Your task to perform on an android device: change the clock style Image 0: 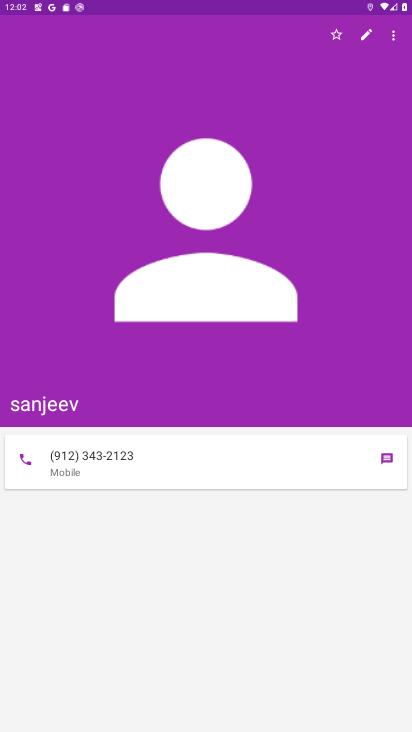
Step 0: press home button
Your task to perform on an android device: change the clock style Image 1: 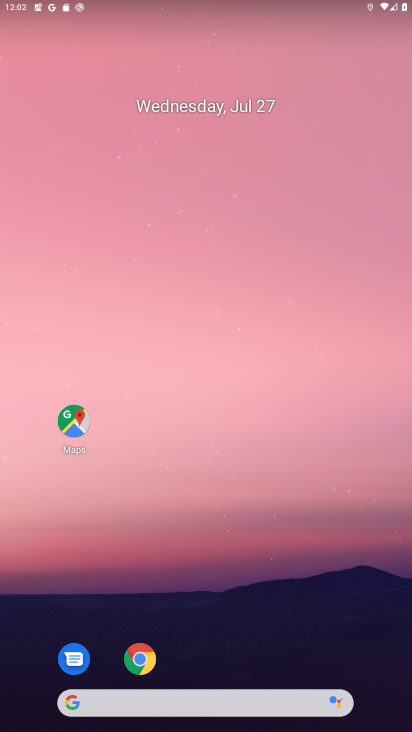
Step 1: drag from (267, 700) to (258, 54)
Your task to perform on an android device: change the clock style Image 2: 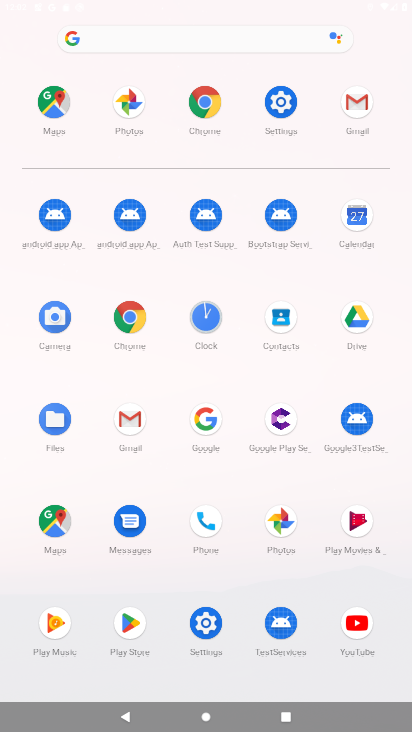
Step 2: click (134, 318)
Your task to perform on an android device: change the clock style Image 3: 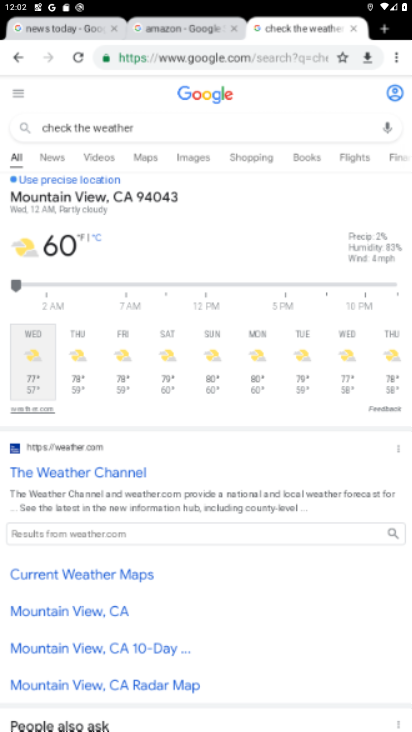
Step 3: press home button
Your task to perform on an android device: change the clock style Image 4: 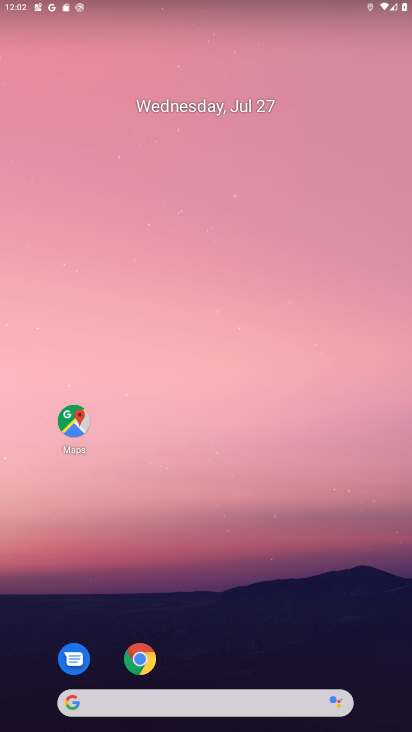
Step 4: drag from (226, 689) to (246, 124)
Your task to perform on an android device: change the clock style Image 5: 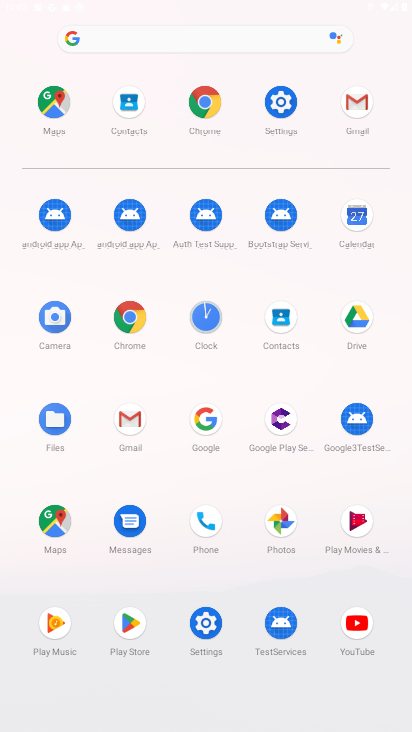
Step 5: click (211, 322)
Your task to perform on an android device: change the clock style Image 6: 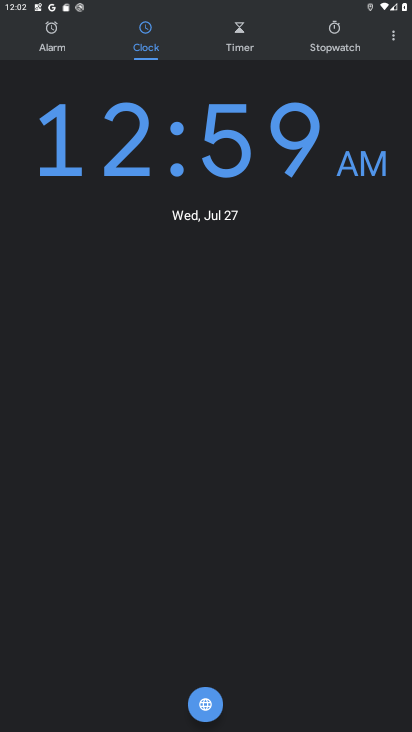
Step 6: click (393, 43)
Your task to perform on an android device: change the clock style Image 7: 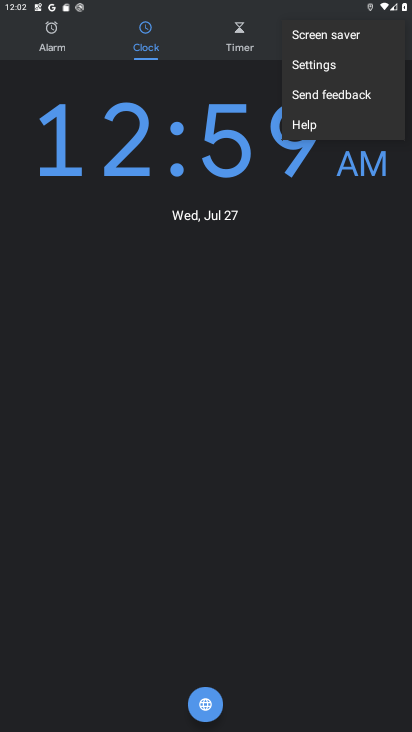
Step 7: click (332, 72)
Your task to perform on an android device: change the clock style Image 8: 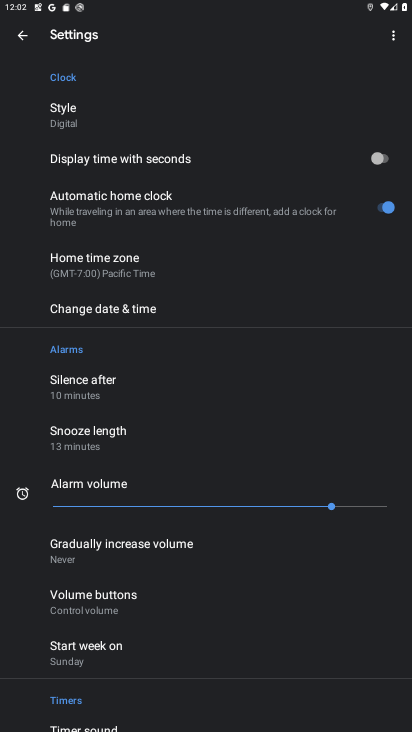
Step 8: click (100, 114)
Your task to perform on an android device: change the clock style Image 9: 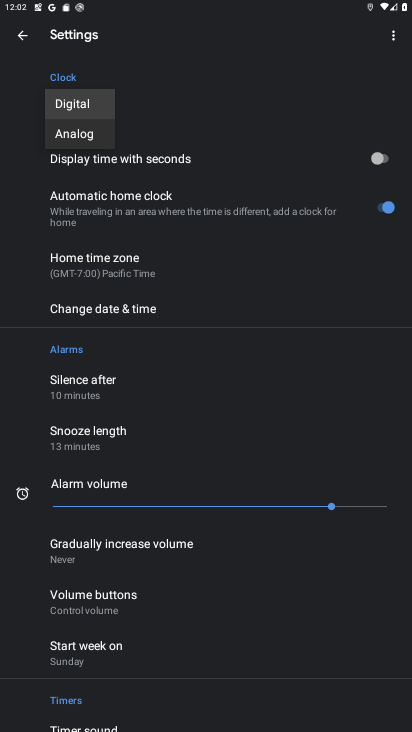
Step 9: click (74, 136)
Your task to perform on an android device: change the clock style Image 10: 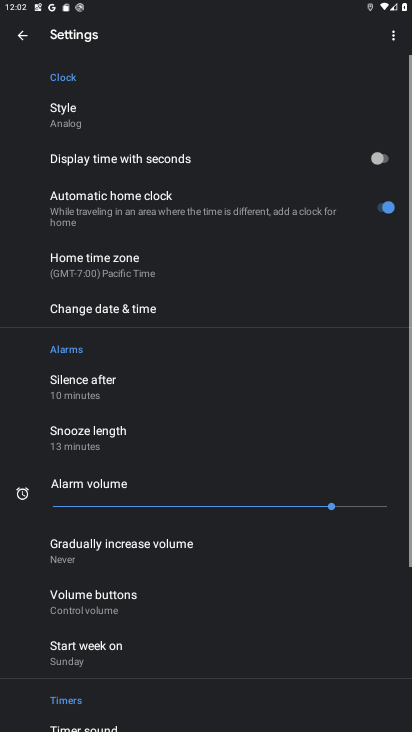
Step 10: task complete